Your task to perform on an android device: Open Google Maps Image 0: 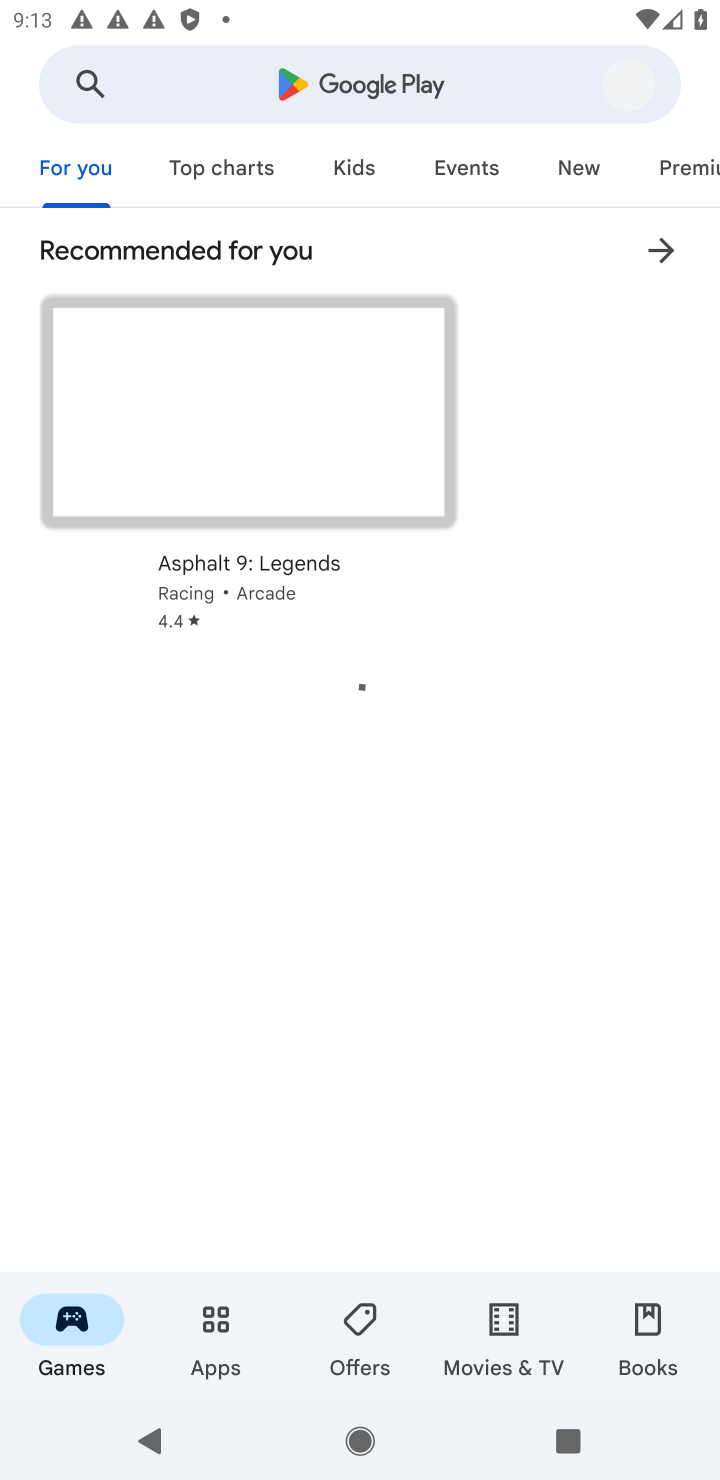
Step 0: press home button
Your task to perform on an android device: Open Google Maps Image 1: 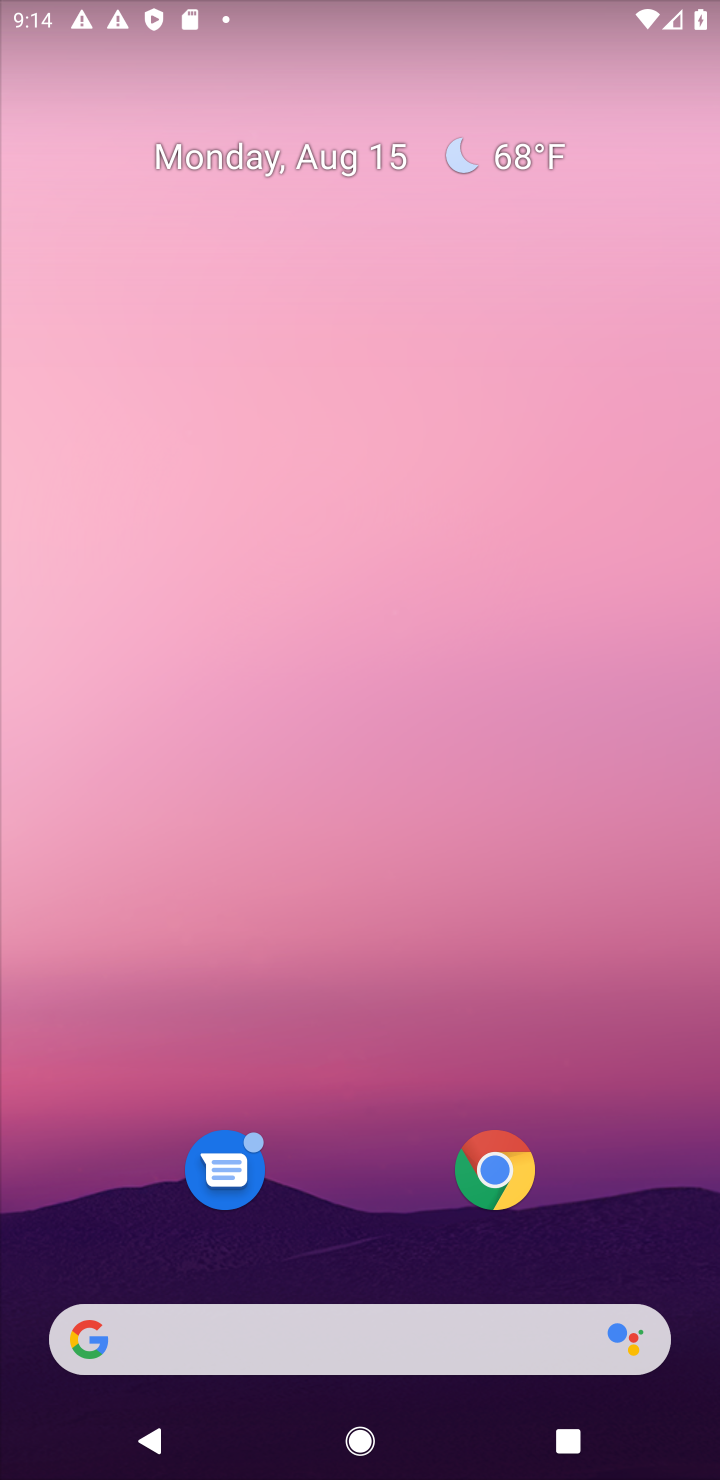
Step 1: drag from (327, 820) to (324, 297)
Your task to perform on an android device: Open Google Maps Image 2: 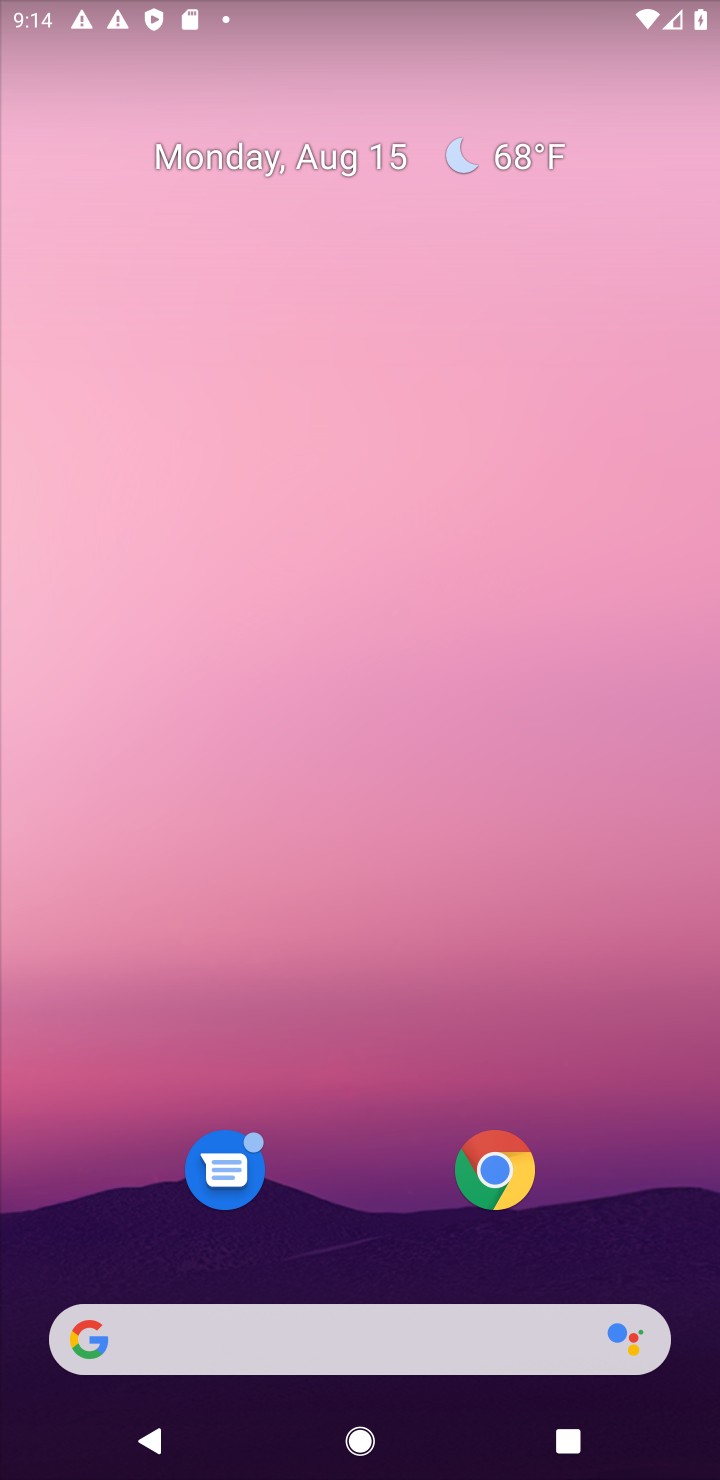
Step 2: drag from (435, 949) to (271, 72)
Your task to perform on an android device: Open Google Maps Image 3: 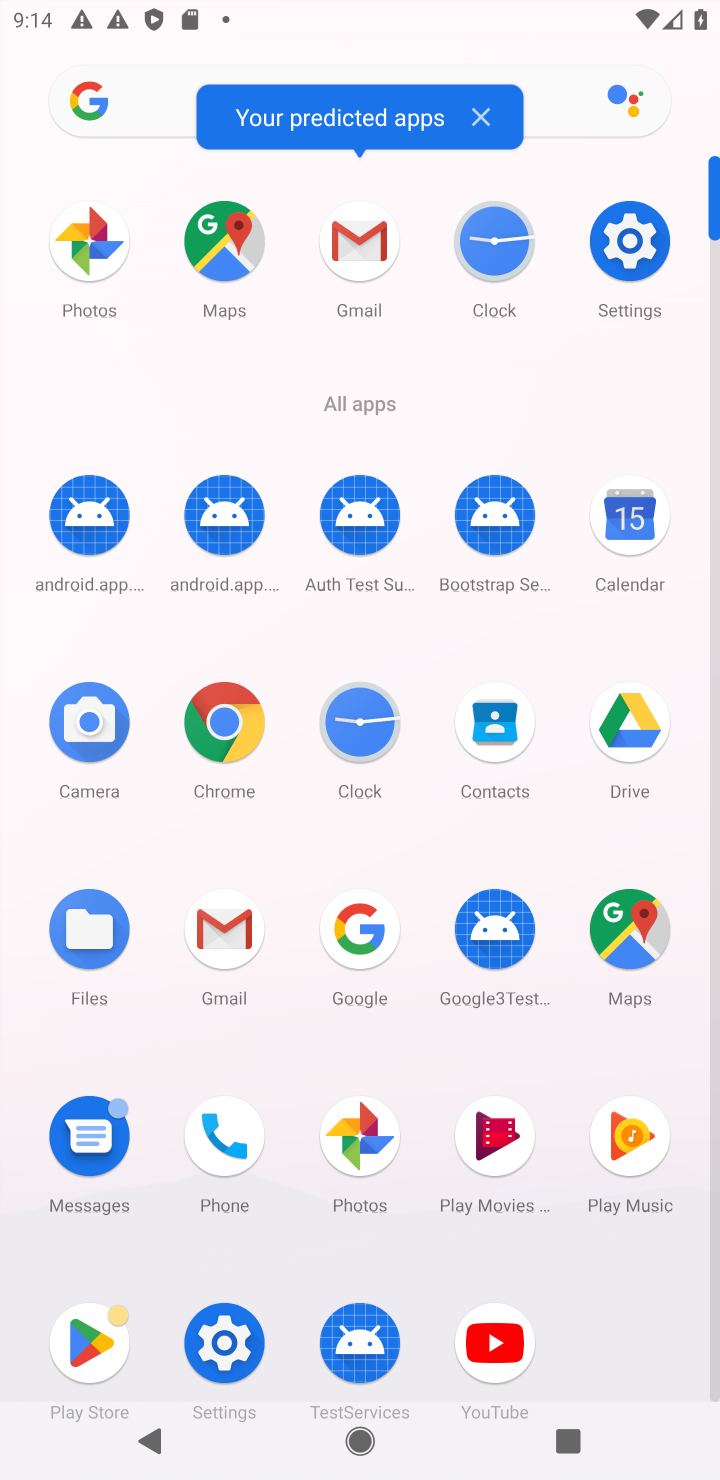
Step 3: click (613, 934)
Your task to perform on an android device: Open Google Maps Image 4: 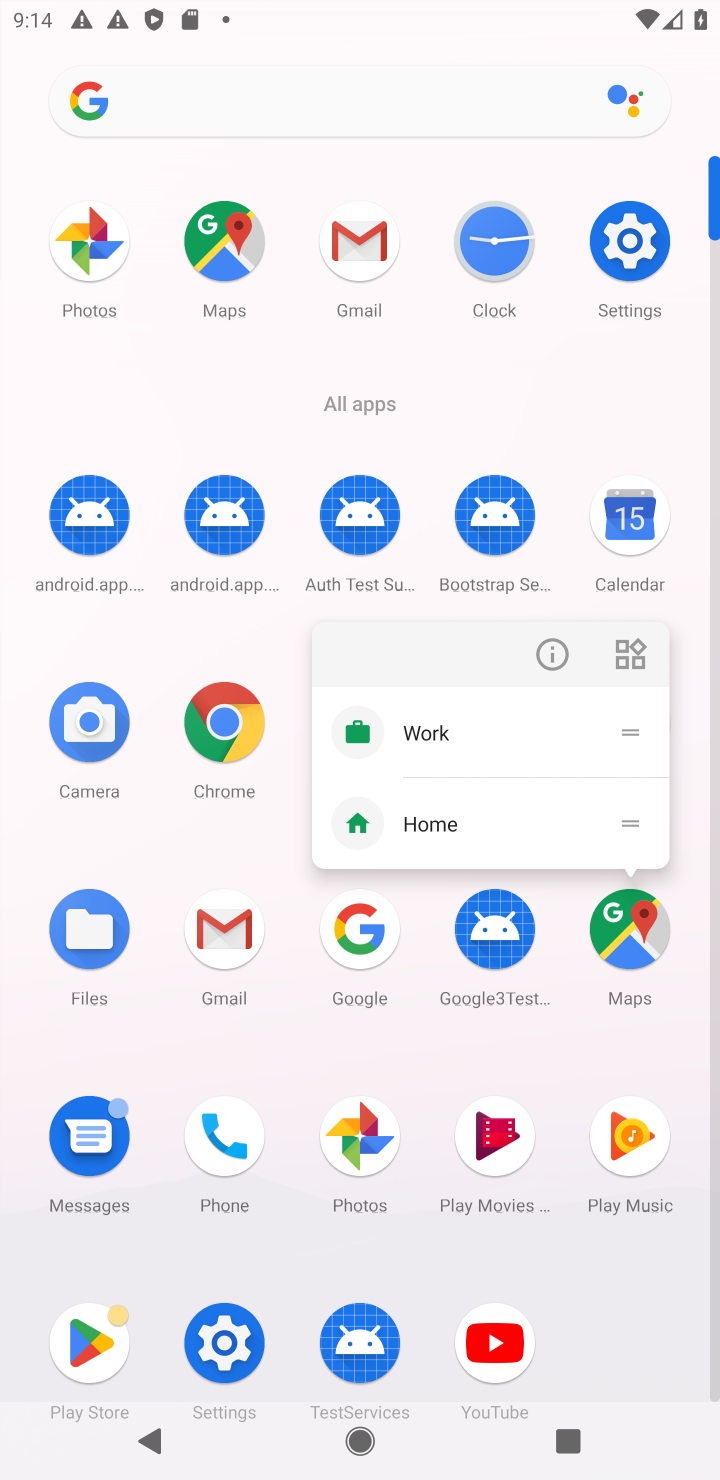
Step 4: click (658, 949)
Your task to perform on an android device: Open Google Maps Image 5: 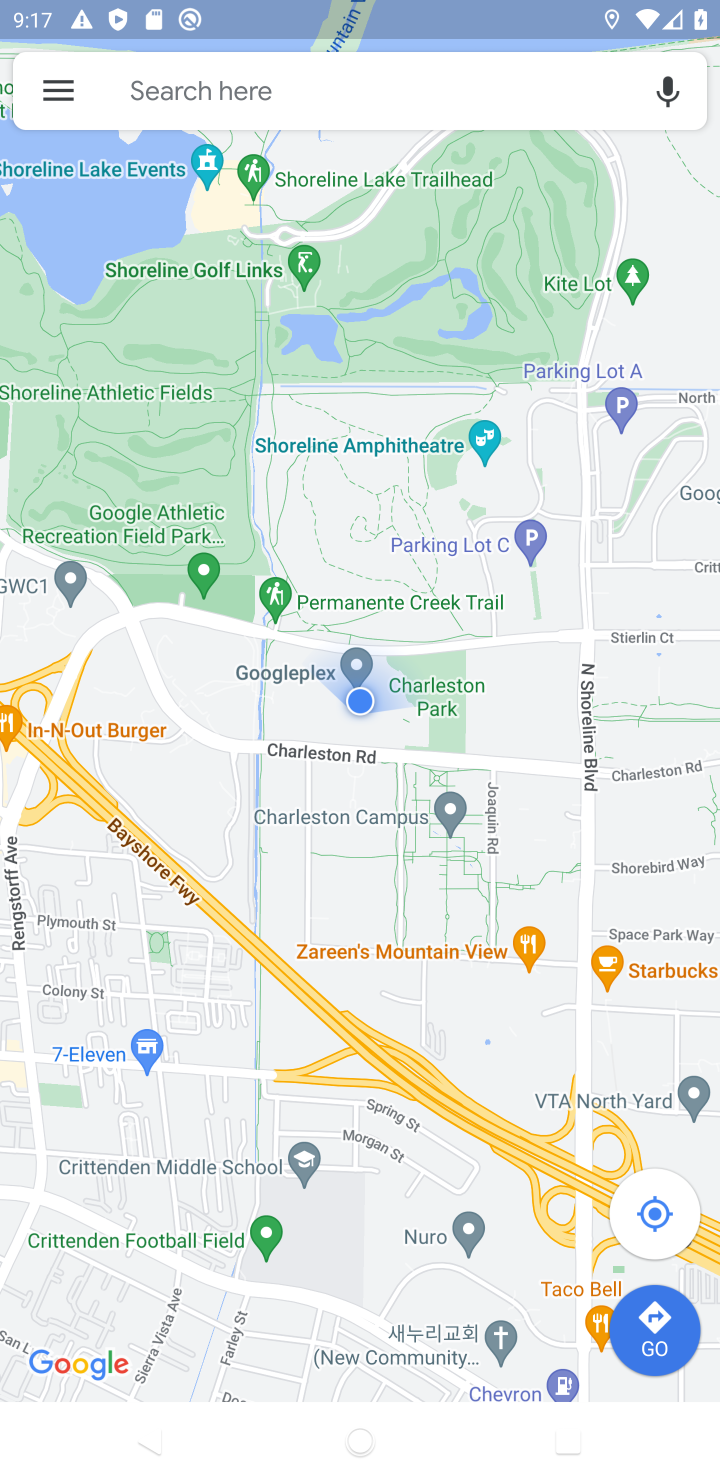
Step 5: task complete